Your task to perform on an android device: Search for the best selling vase on Crate & Barrel Image 0: 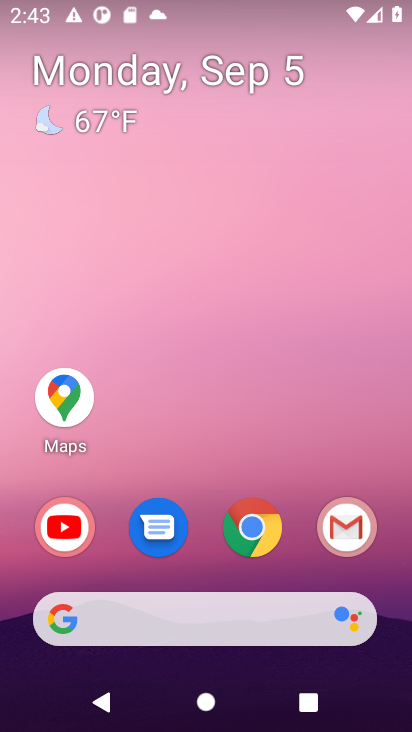
Step 0: click (258, 535)
Your task to perform on an android device: Search for the best selling vase on Crate & Barrel Image 1: 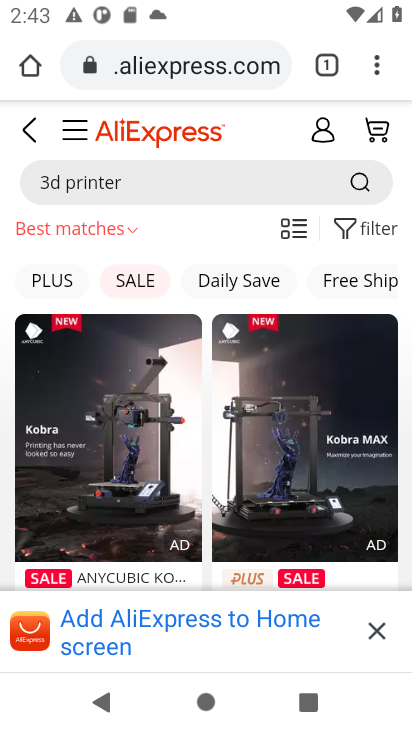
Step 1: click (180, 65)
Your task to perform on an android device: Search for the best selling vase on Crate & Barrel Image 2: 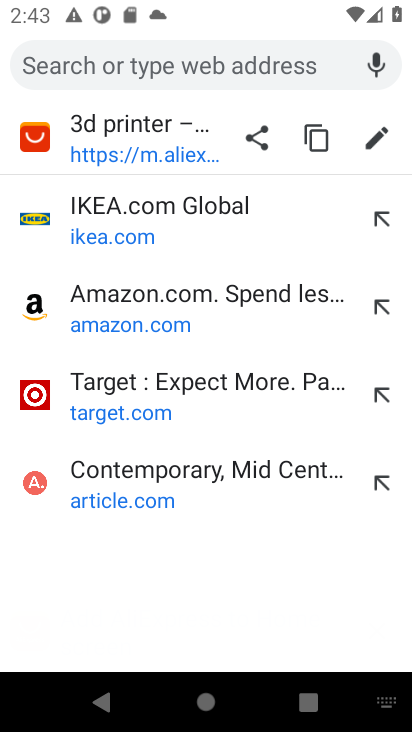
Step 2: type "crate and barrels"
Your task to perform on an android device: Search for the best selling vase on Crate & Barrel Image 3: 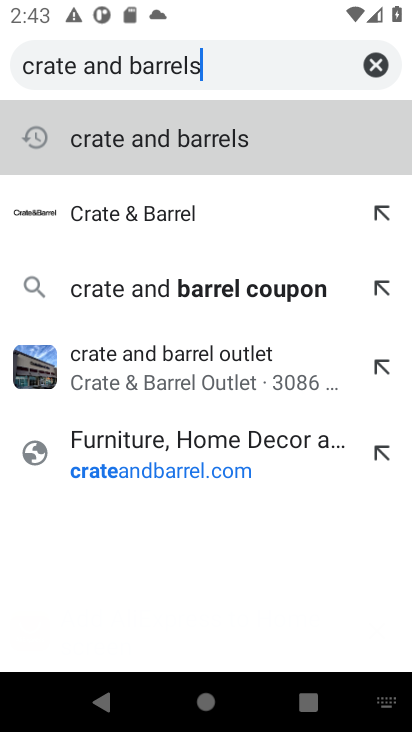
Step 3: click (110, 200)
Your task to perform on an android device: Search for the best selling vase on Crate & Barrel Image 4: 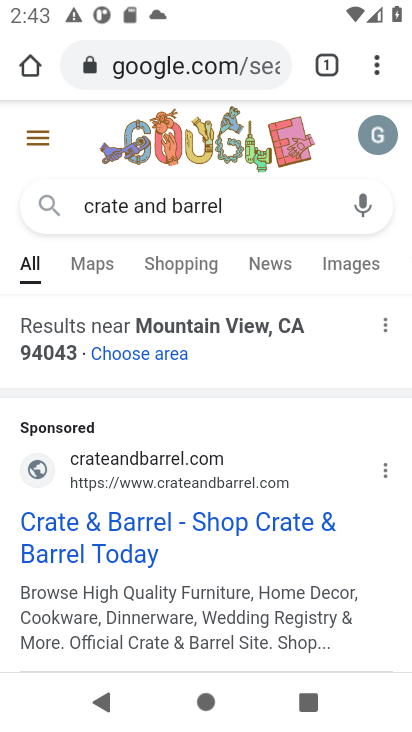
Step 4: click (162, 527)
Your task to perform on an android device: Search for the best selling vase on Crate & Barrel Image 5: 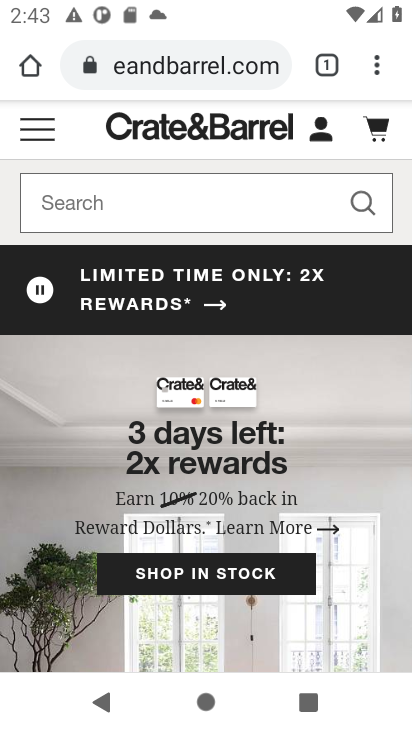
Step 5: click (171, 203)
Your task to perform on an android device: Search for the best selling vase on Crate & Barrel Image 6: 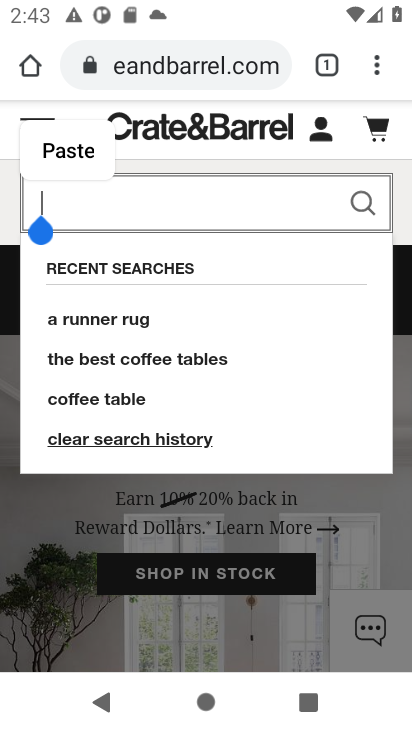
Step 6: type "the best selling vase"
Your task to perform on an android device: Search for the best selling vase on Crate & Barrel Image 7: 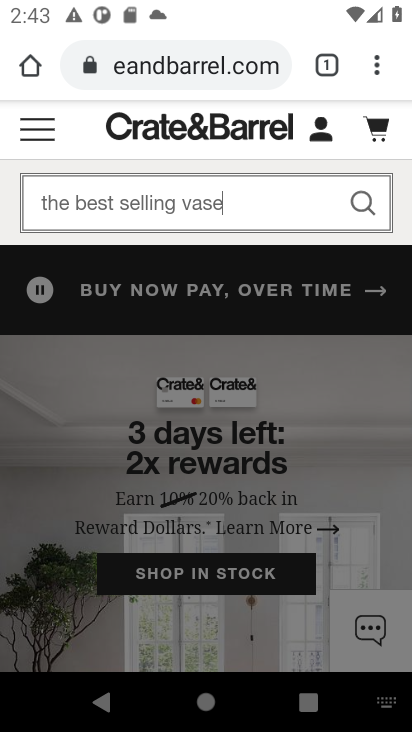
Step 7: click (366, 204)
Your task to perform on an android device: Search for the best selling vase on Crate & Barrel Image 8: 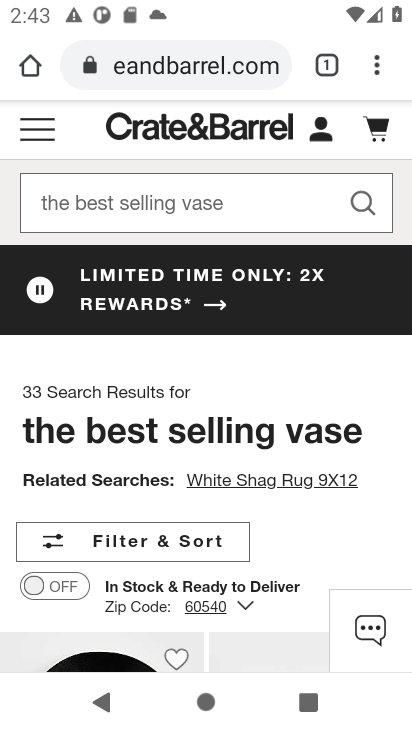
Step 8: task complete